Your task to perform on an android device: What's the weather going to be this weekend? Image 0: 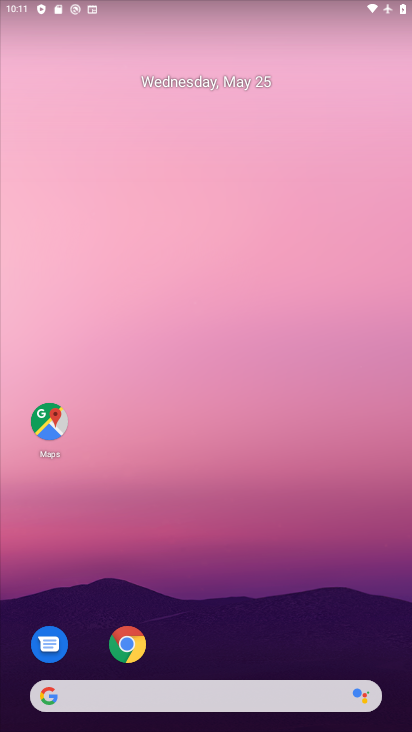
Step 0: drag from (279, 625) to (327, 121)
Your task to perform on an android device: What's the weather going to be this weekend? Image 1: 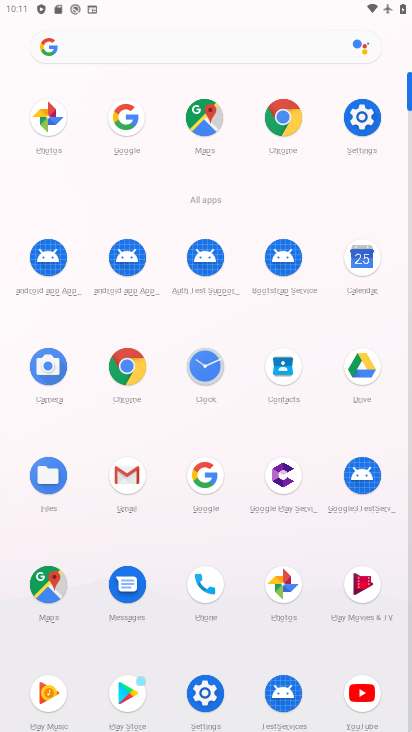
Step 1: click (130, 123)
Your task to perform on an android device: What's the weather going to be this weekend? Image 2: 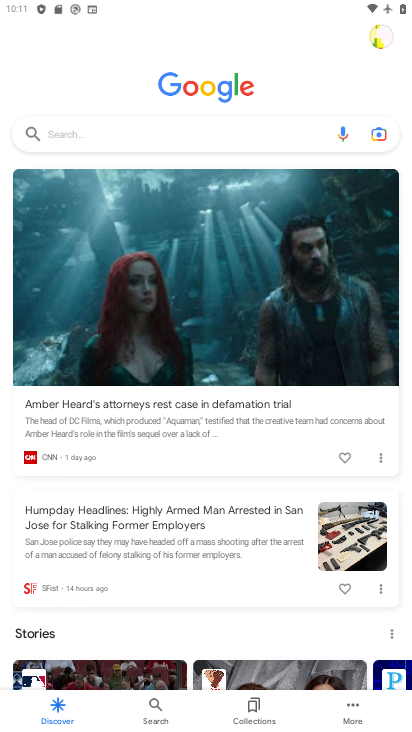
Step 2: click (167, 115)
Your task to perform on an android device: What's the weather going to be this weekend? Image 3: 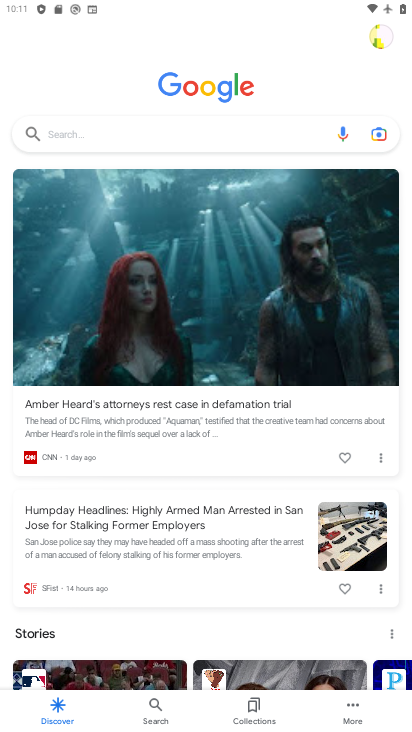
Step 3: click (135, 135)
Your task to perform on an android device: What's the weather going to be this weekend? Image 4: 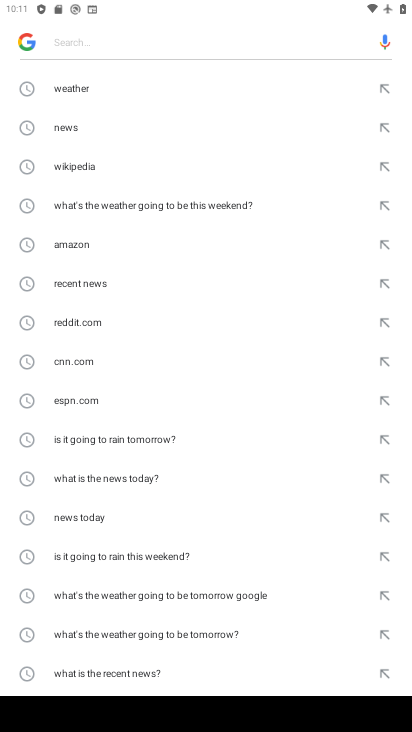
Step 4: click (163, 211)
Your task to perform on an android device: What's the weather going to be this weekend? Image 5: 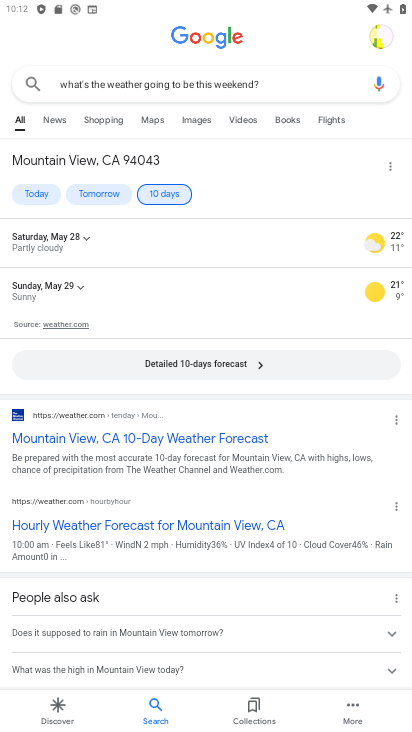
Step 5: task complete